Your task to perform on an android device: turn off sleep mode Image 0: 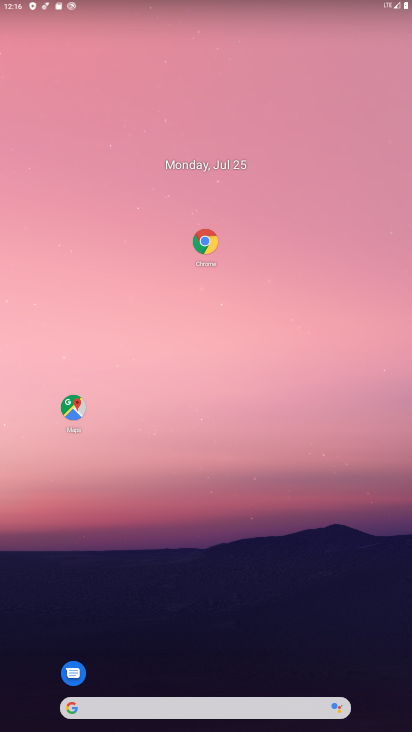
Step 0: drag from (186, 702) to (252, 76)
Your task to perform on an android device: turn off sleep mode Image 1: 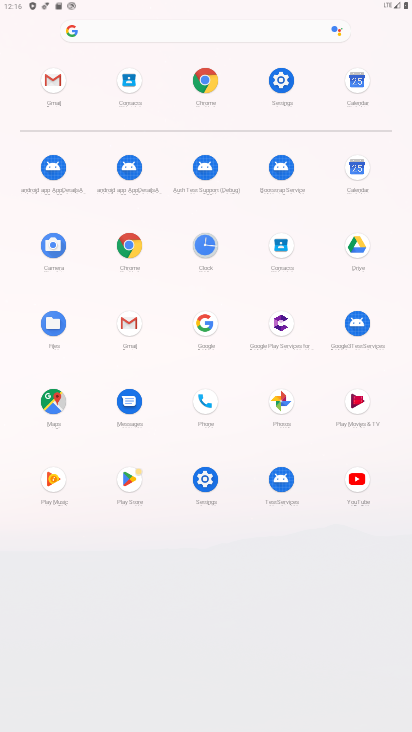
Step 1: click (280, 80)
Your task to perform on an android device: turn off sleep mode Image 2: 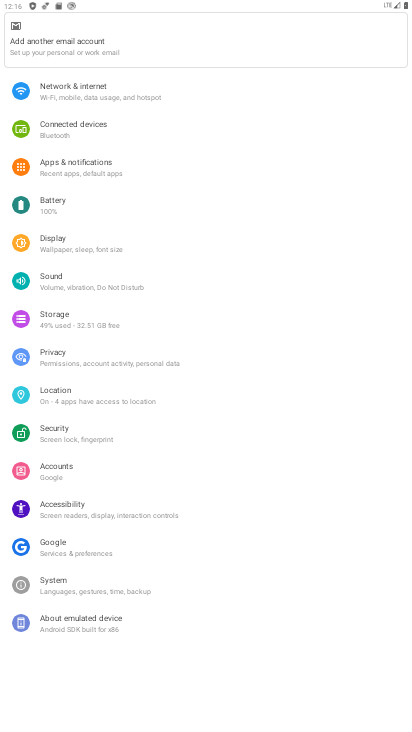
Step 2: drag from (127, 112) to (105, 211)
Your task to perform on an android device: turn off sleep mode Image 3: 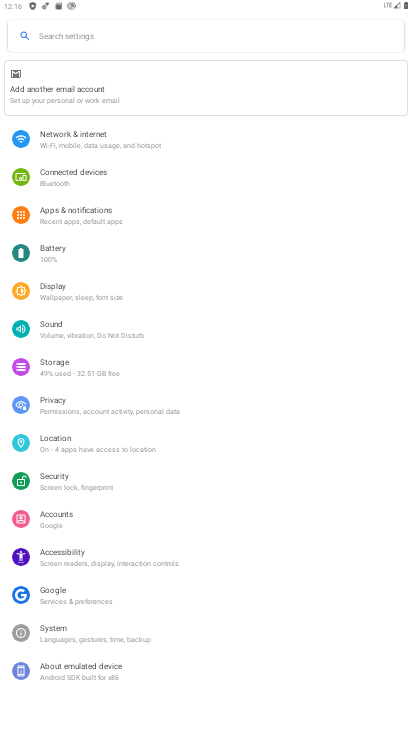
Step 3: click (81, 334)
Your task to perform on an android device: turn off sleep mode Image 4: 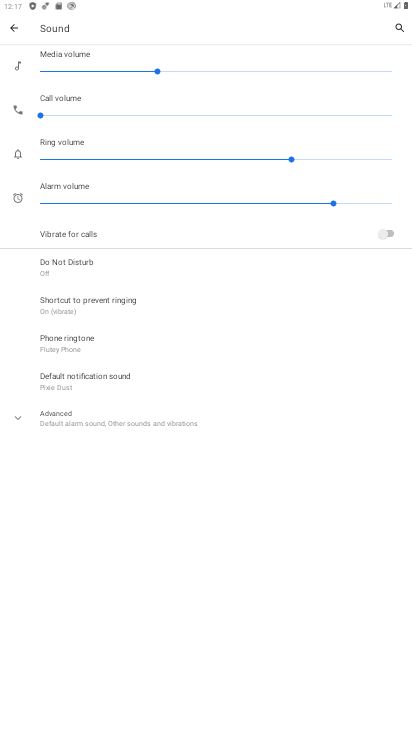
Step 4: task complete